Your task to perform on an android device: toggle improve location accuracy Image 0: 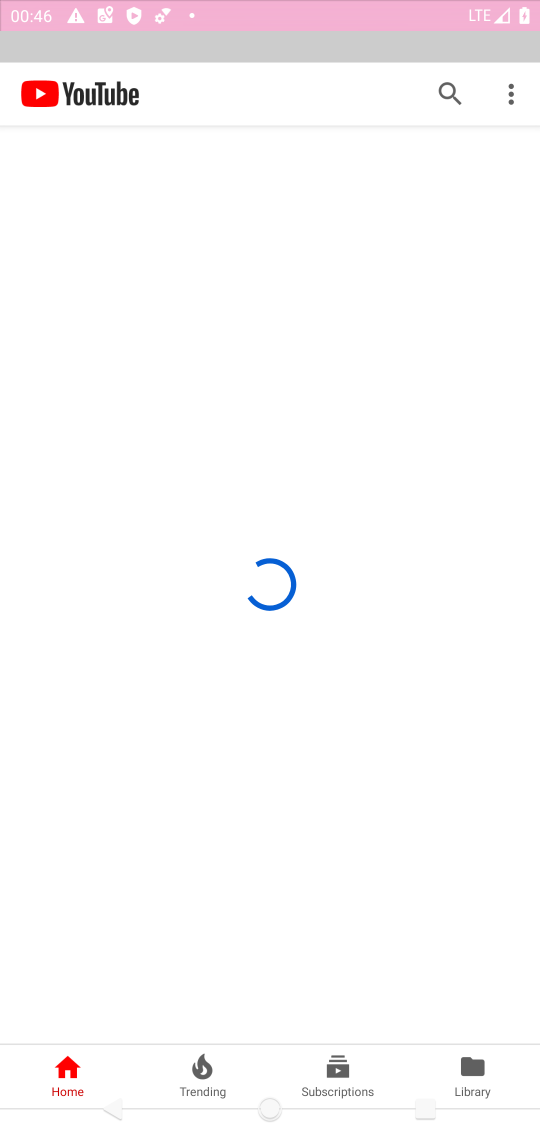
Step 0: press home button
Your task to perform on an android device: toggle improve location accuracy Image 1: 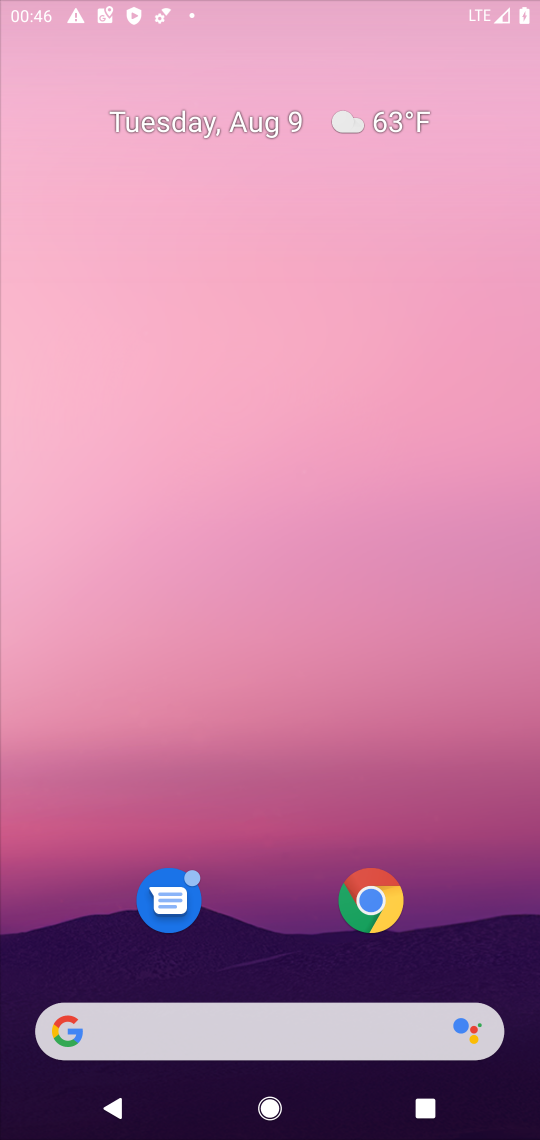
Step 1: press home button
Your task to perform on an android device: toggle improve location accuracy Image 2: 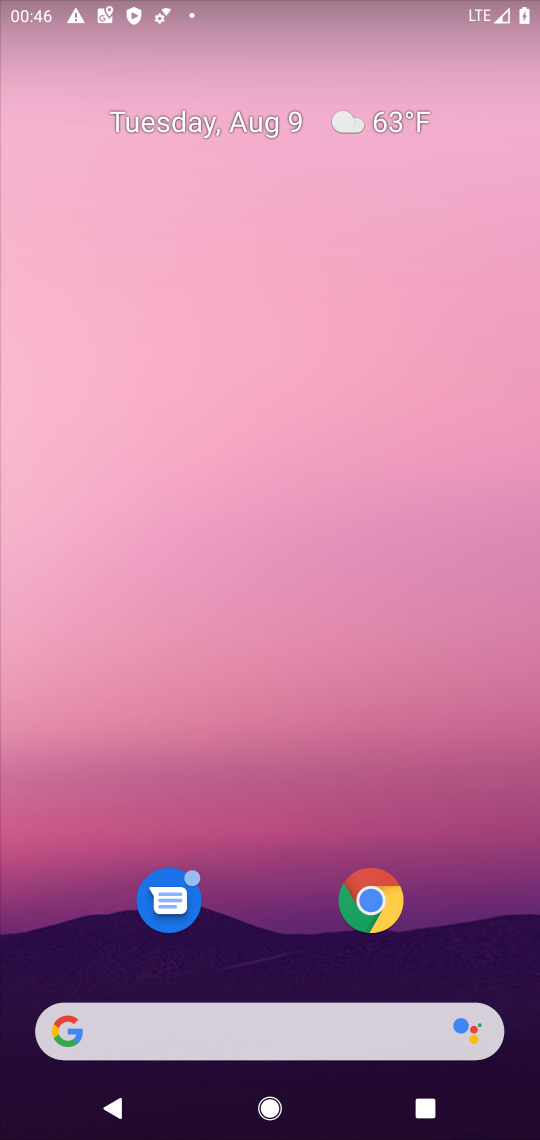
Step 2: drag from (460, 916) to (483, 133)
Your task to perform on an android device: toggle improve location accuracy Image 3: 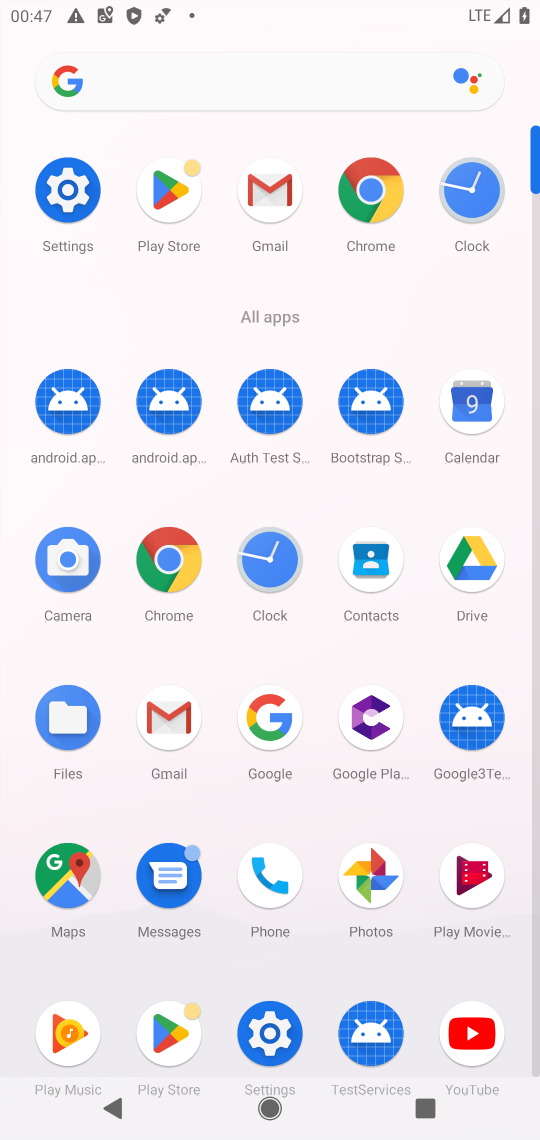
Step 3: click (56, 189)
Your task to perform on an android device: toggle improve location accuracy Image 4: 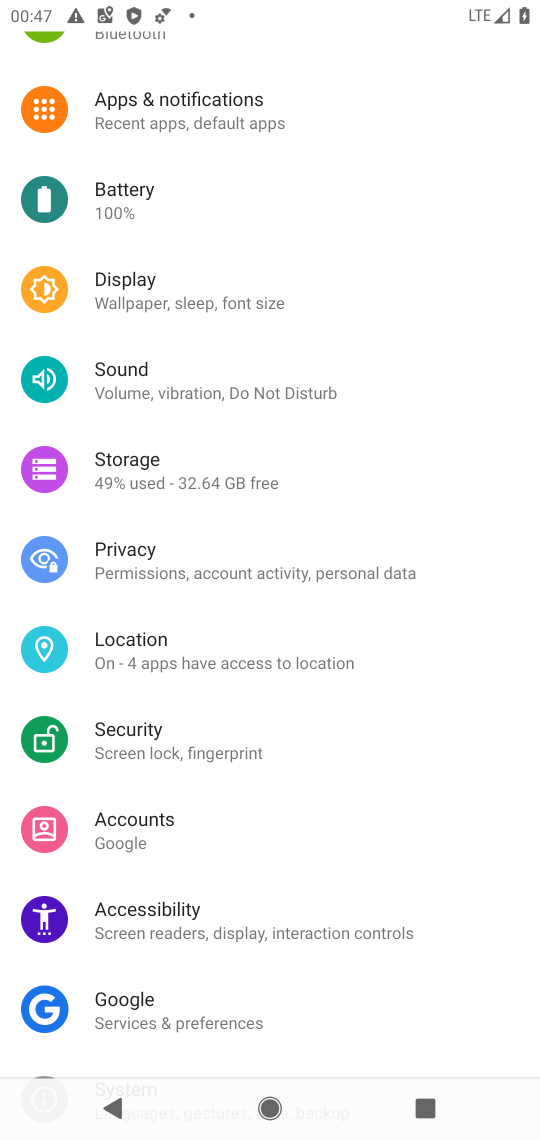
Step 4: drag from (464, 285) to (479, 601)
Your task to perform on an android device: toggle improve location accuracy Image 5: 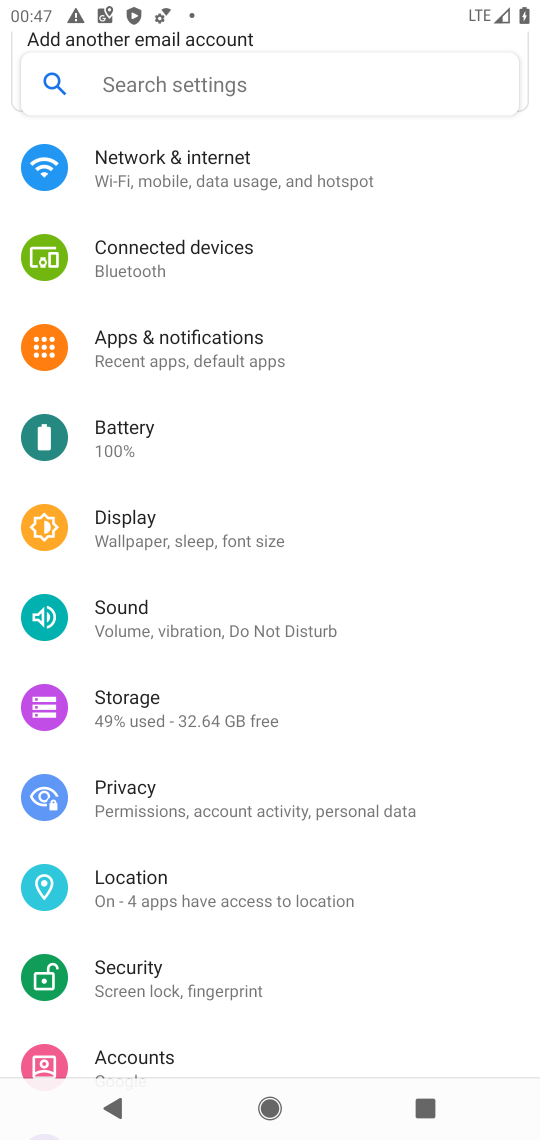
Step 5: drag from (470, 278) to (476, 581)
Your task to perform on an android device: toggle improve location accuracy Image 6: 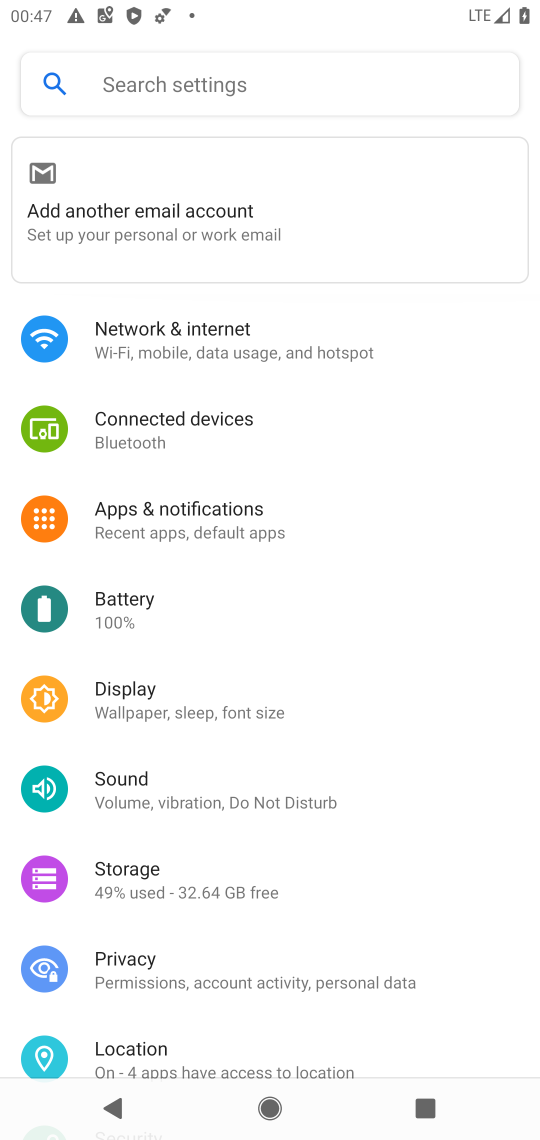
Step 6: drag from (470, 286) to (487, 691)
Your task to perform on an android device: toggle improve location accuracy Image 7: 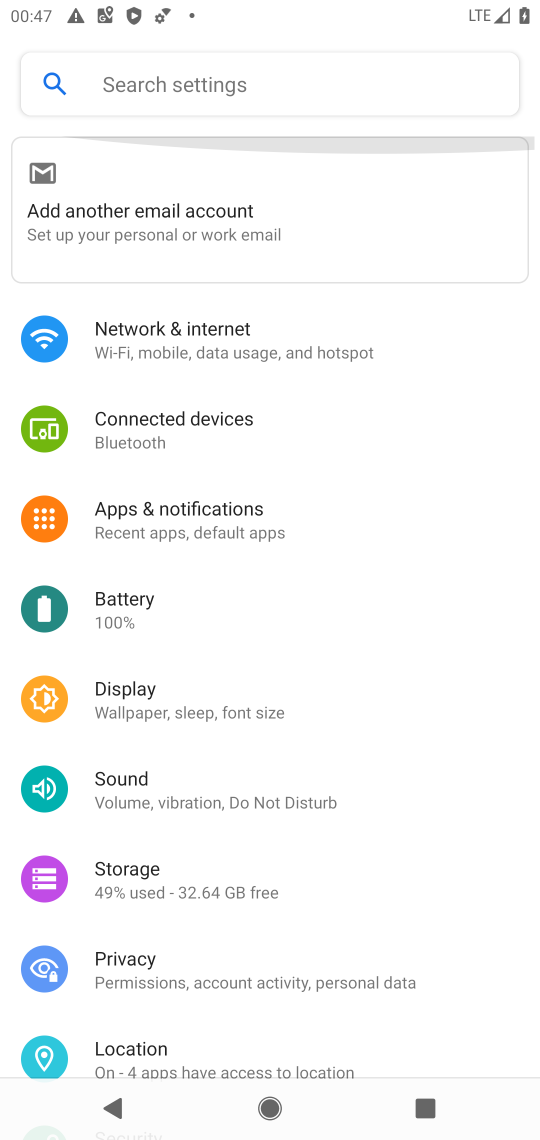
Step 7: drag from (437, 738) to (459, 348)
Your task to perform on an android device: toggle improve location accuracy Image 8: 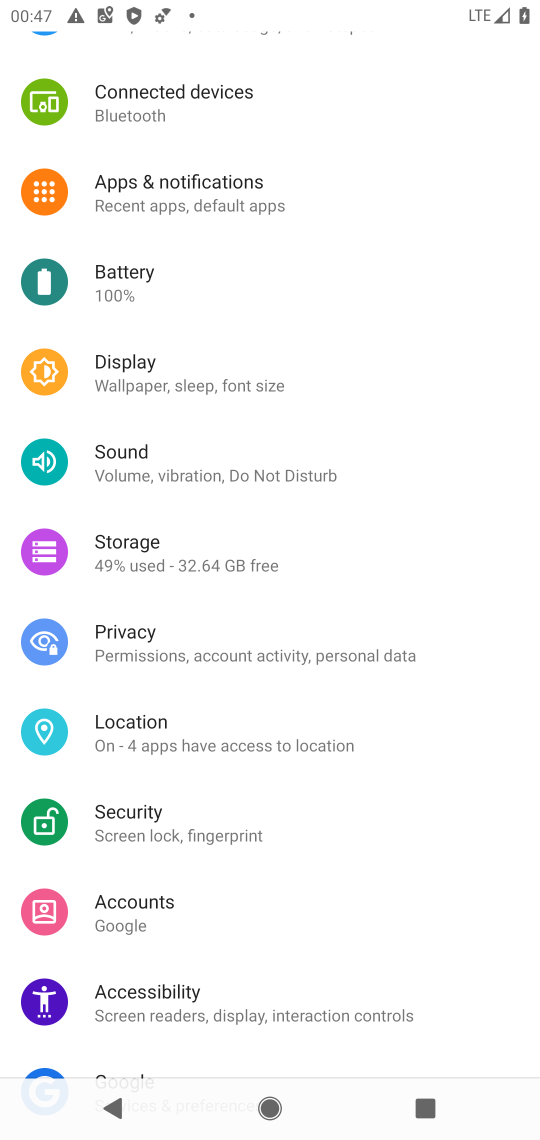
Step 8: drag from (440, 781) to (461, 430)
Your task to perform on an android device: toggle improve location accuracy Image 9: 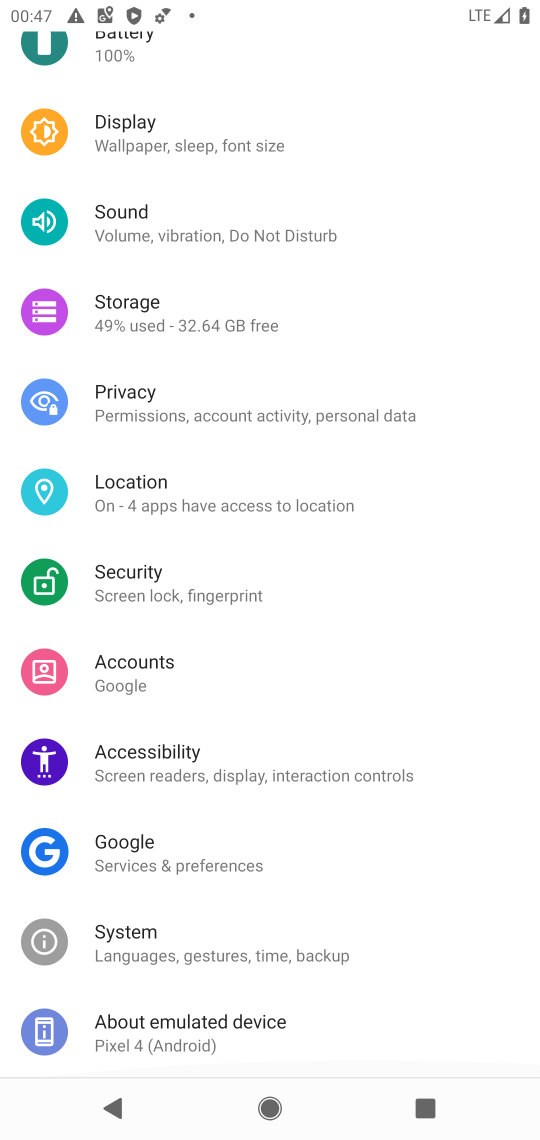
Step 9: drag from (431, 778) to (447, 440)
Your task to perform on an android device: toggle improve location accuracy Image 10: 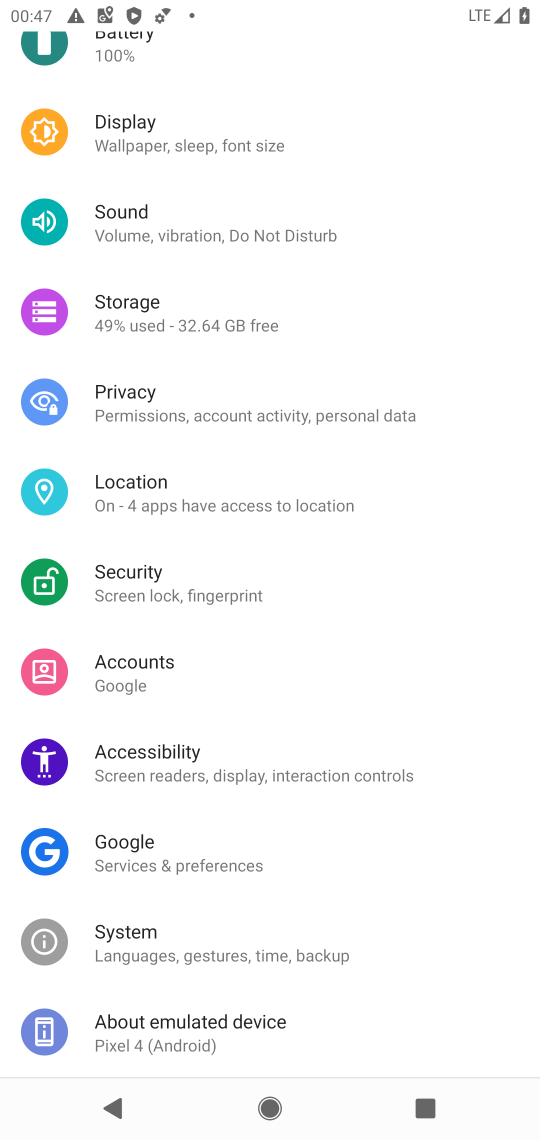
Step 10: click (304, 492)
Your task to perform on an android device: toggle improve location accuracy Image 11: 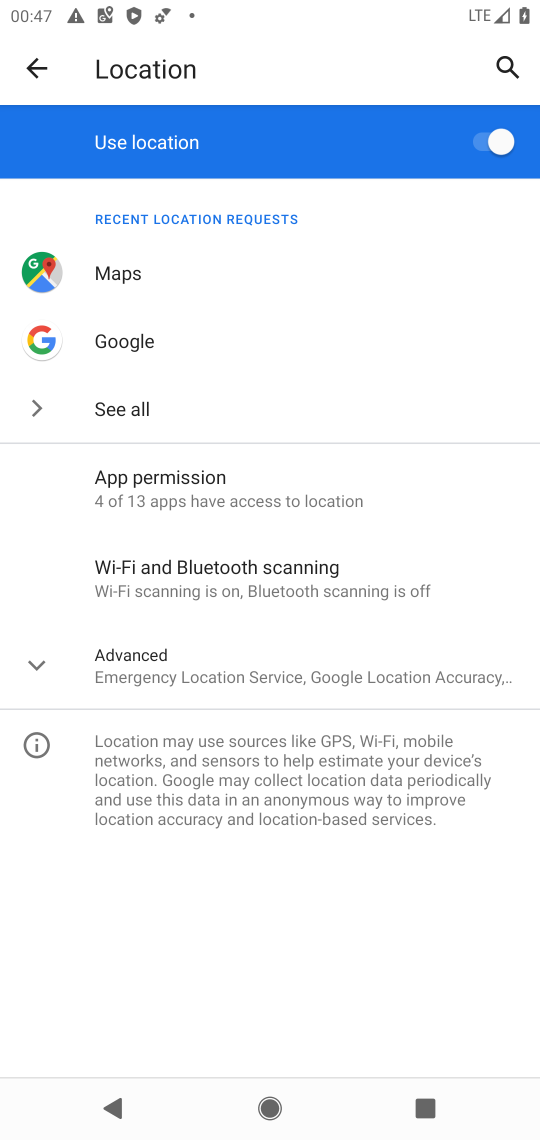
Step 11: click (300, 666)
Your task to perform on an android device: toggle improve location accuracy Image 12: 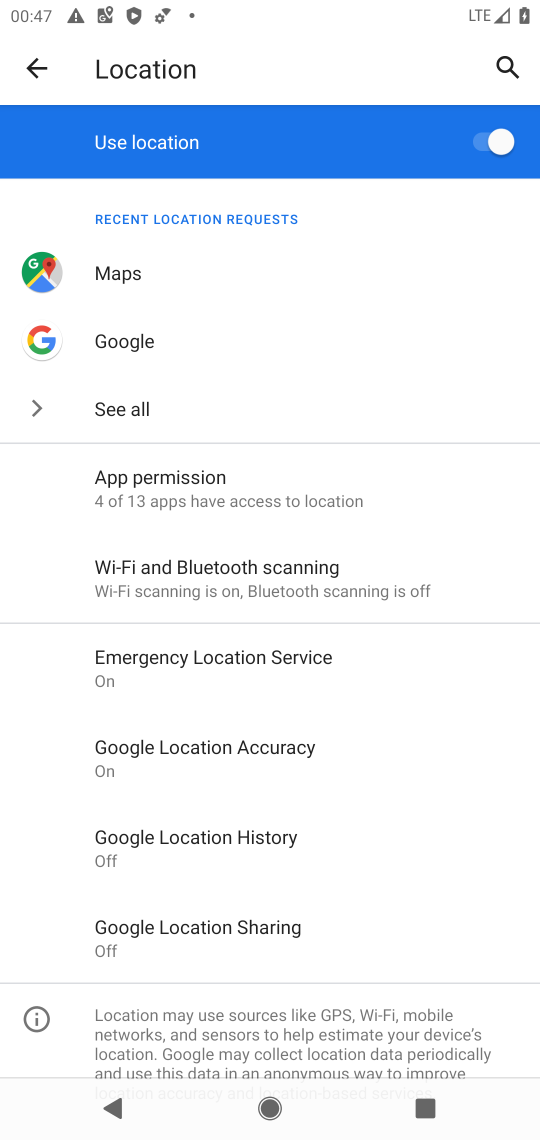
Step 12: drag from (381, 830) to (417, 525)
Your task to perform on an android device: toggle improve location accuracy Image 13: 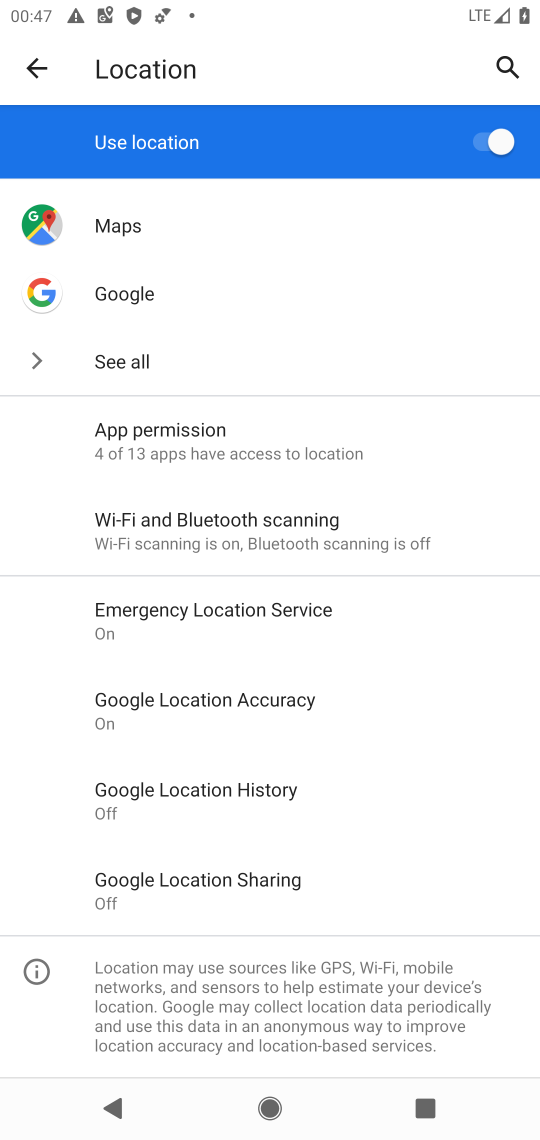
Step 13: click (232, 711)
Your task to perform on an android device: toggle improve location accuracy Image 14: 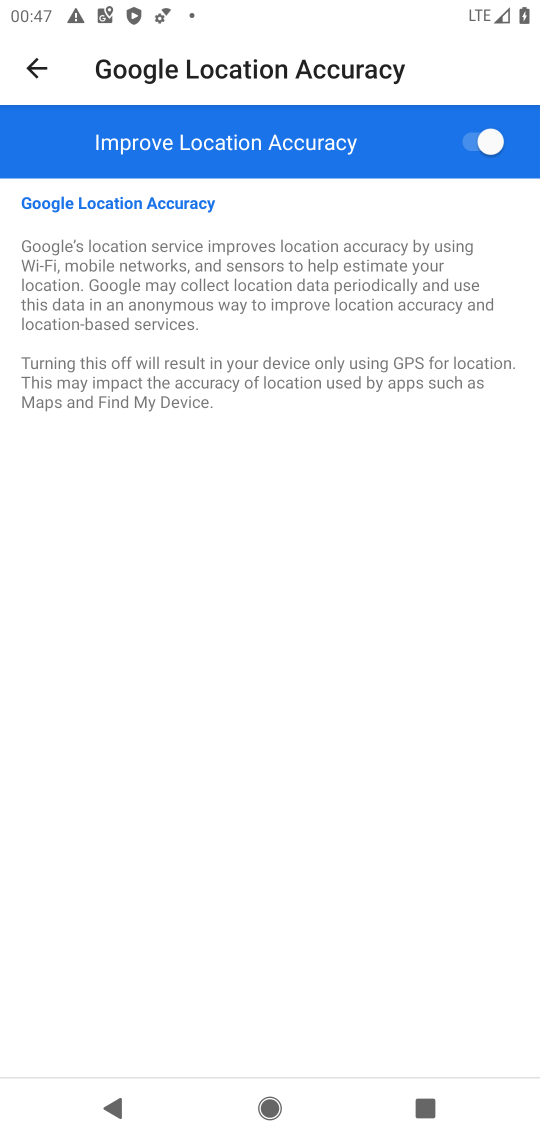
Step 14: click (489, 142)
Your task to perform on an android device: toggle improve location accuracy Image 15: 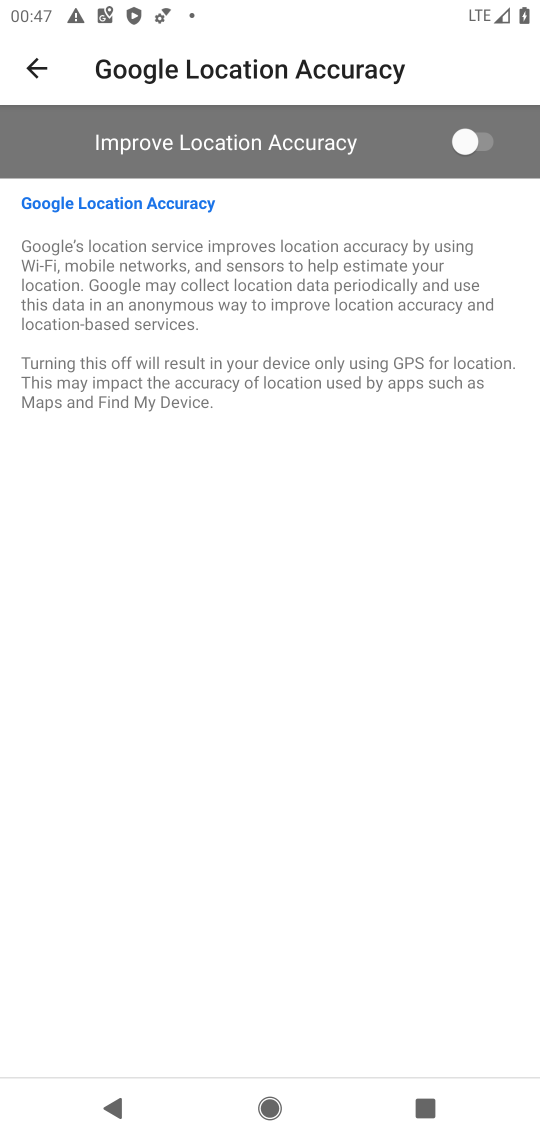
Step 15: task complete